Your task to perform on an android device: When is my next meeting? Image 0: 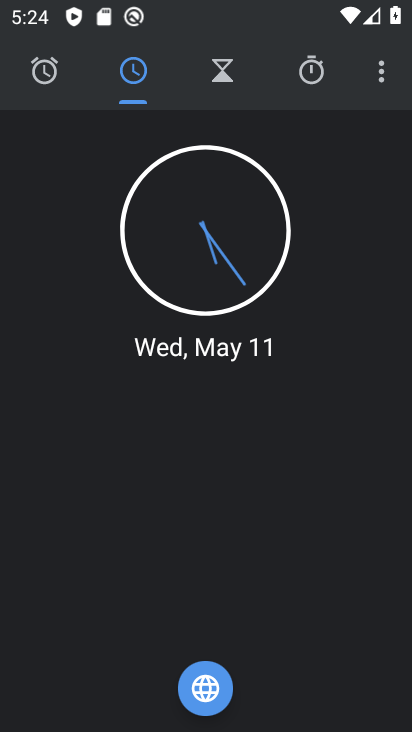
Step 0: press home button
Your task to perform on an android device: When is my next meeting? Image 1: 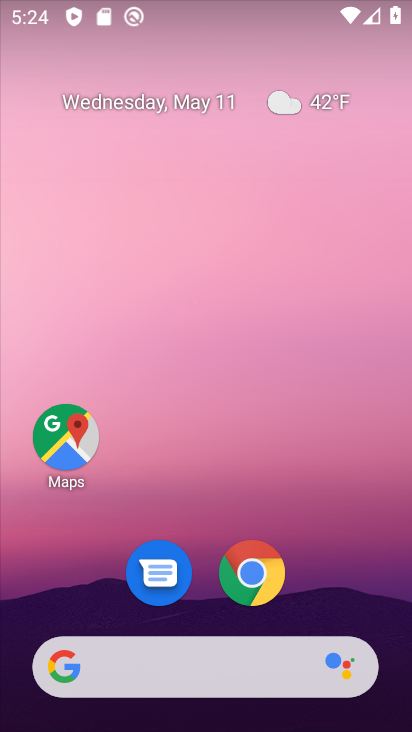
Step 1: drag from (320, 587) to (239, 174)
Your task to perform on an android device: When is my next meeting? Image 2: 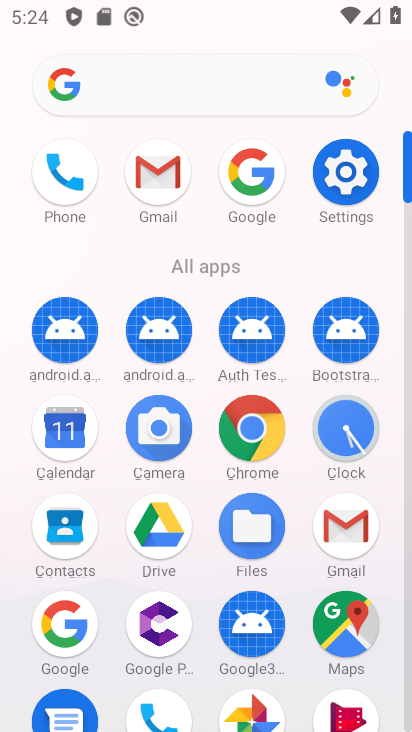
Step 2: click (76, 450)
Your task to perform on an android device: When is my next meeting? Image 3: 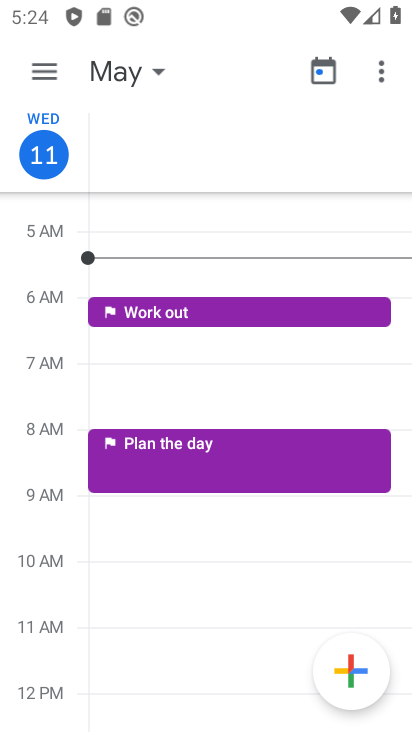
Step 3: click (108, 76)
Your task to perform on an android device: When is my next meeting? Image 4: 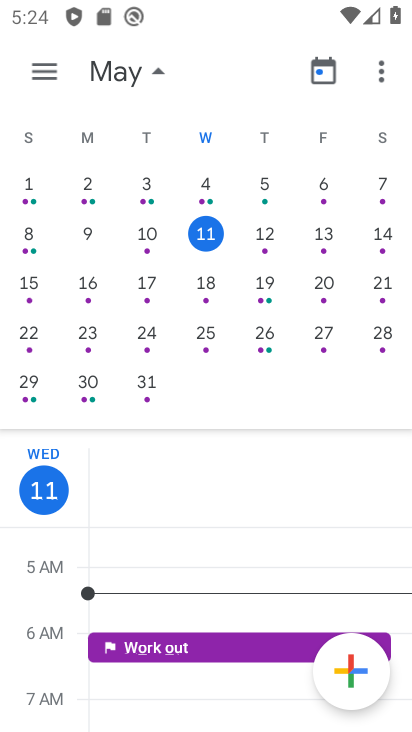
Step 4: click (108, 76)
Your task to perform on an android device: When is my next meeting? Image 5: 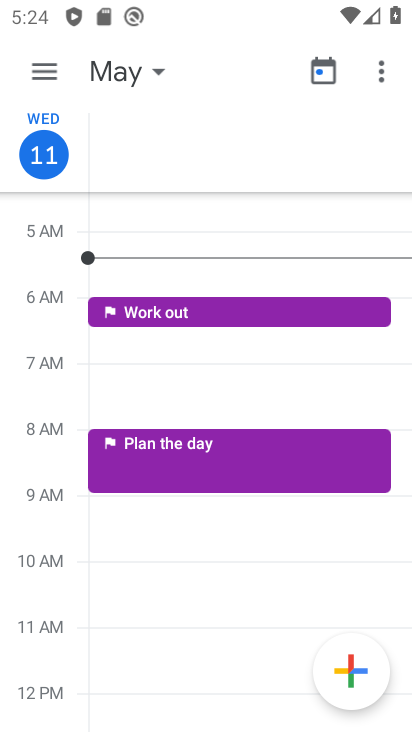
Step 5: click (47, 70)
Your task to perform on an android device: When is my next meeting? Image 6: 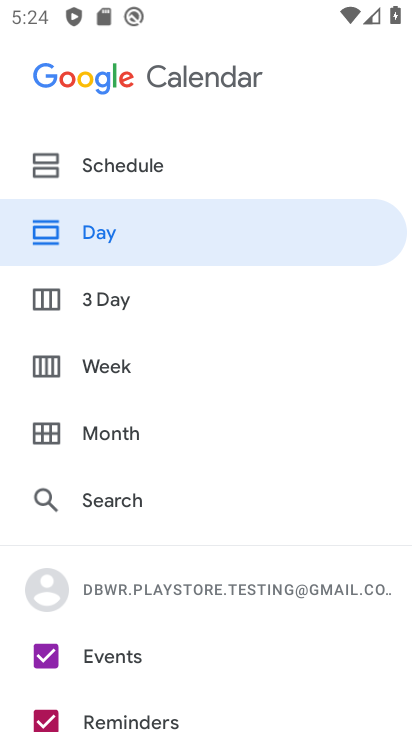
Step 6: click (100, 168)
Your task to perform on an android device: When is my next meeting? Image 7: 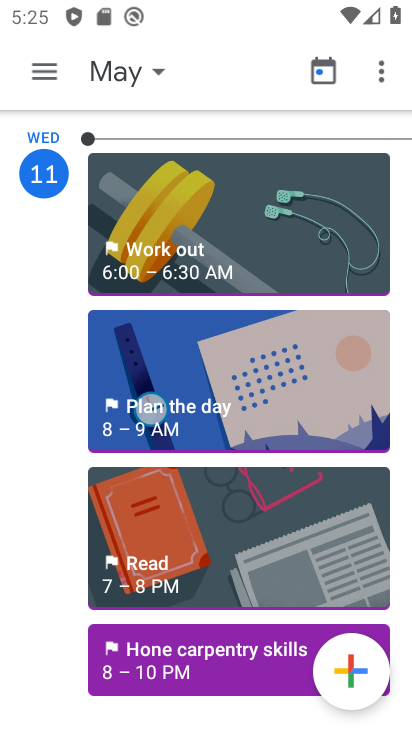
Step 7: task complete